Your task to perform on an android device: all mails in gmail Image 0: 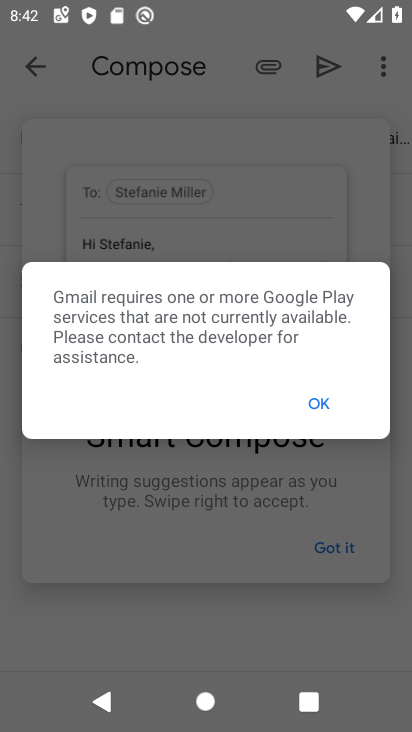
Step 0: press home button
Your task to perform on an android device: all mails in gmail Image 1: 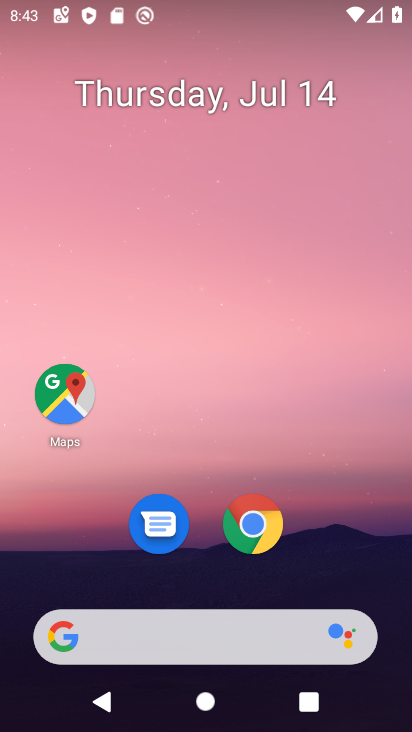
Step 1: drag from (348, 543) to (293, 0)
Your task to perform on an android device: all mails in gmail Image 2: 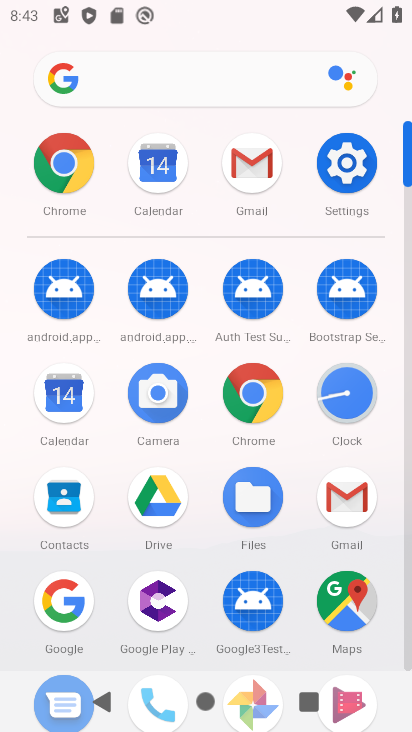
Step 2: click (261, 158)
Your task to perform on an android device: all mails in gmail Image 3: 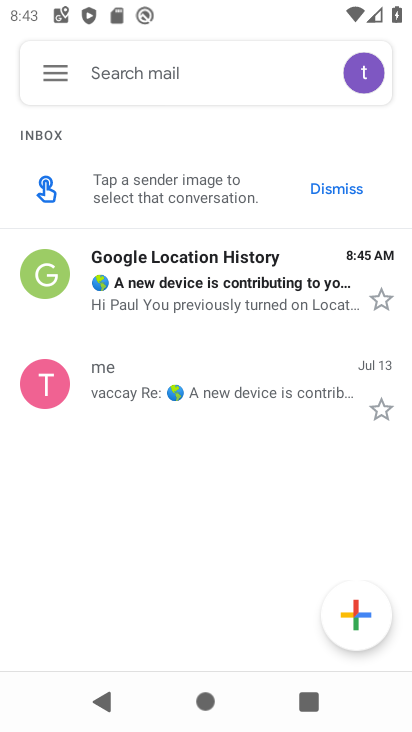
Step 3: click (60, 70)
Your task to perform on an android device: all mails in gmail Image 4: 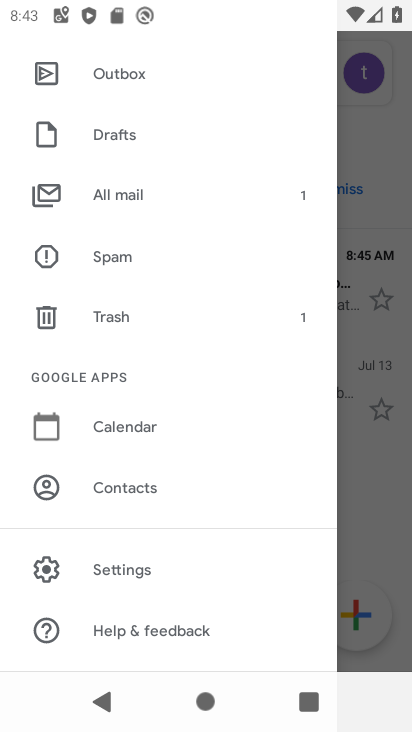
Step 4: click (89, 201)
Your task to perform on an android device: all mails in gmail Image 5: 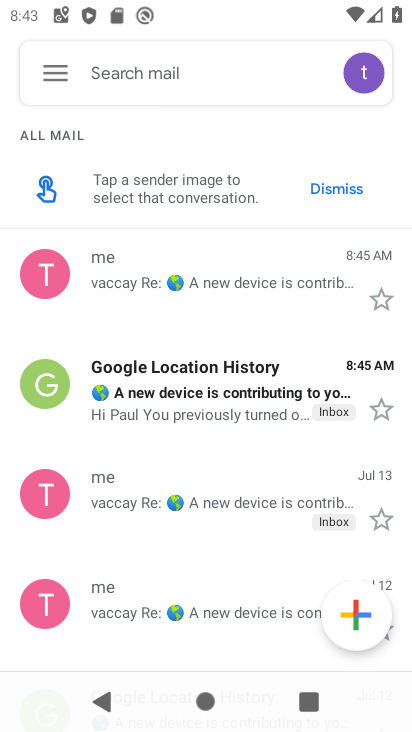
Step 5: task complete